Your task to perform on an android device: turn pop-ups off in chrome Image 0: 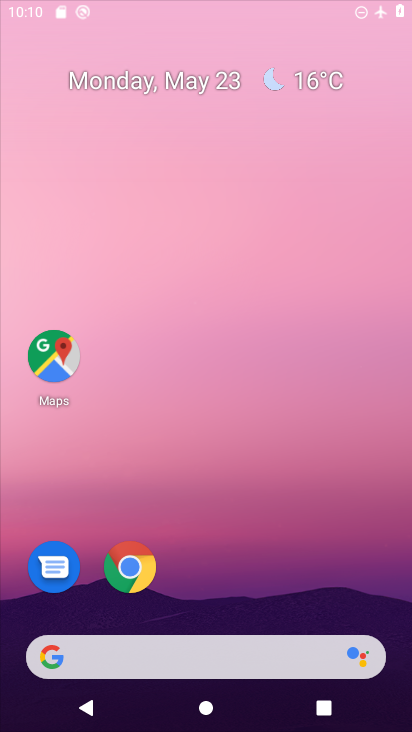
Step 0: click (236, 175)
Your task to perform on an android device: turn pop-ups off in chrome Image 1: 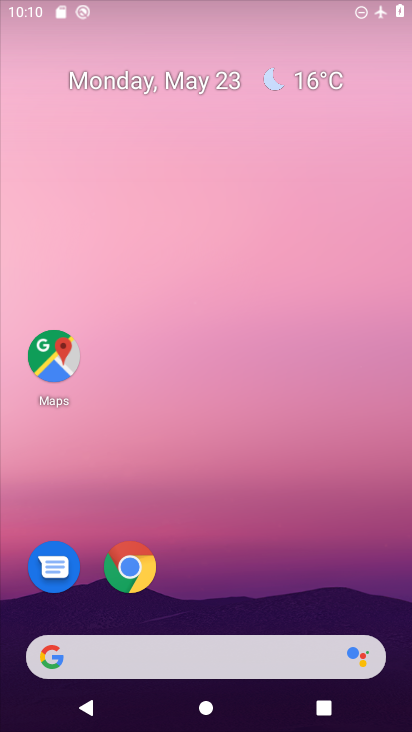
Step 1: drag from (178, 611) to (265, 153)
Your task to perform on an android device: turn pop-ups off in chrome Image 2: 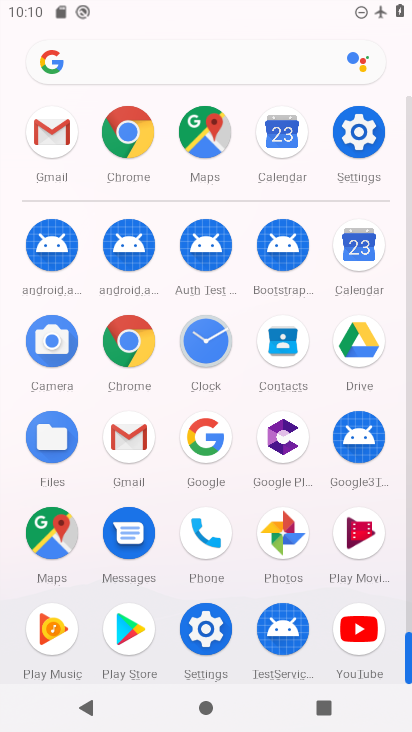
Step 2: click (124, 334)
Your task to perform on an android device: turn pop-ups off in chrome Image 3: 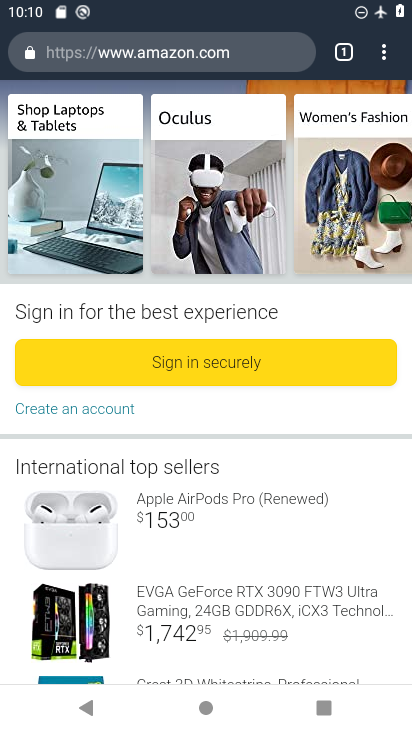
Step 3: click (389, 51)
Your task to perform on an android device: turn pop-ups off in chrome Image 4: 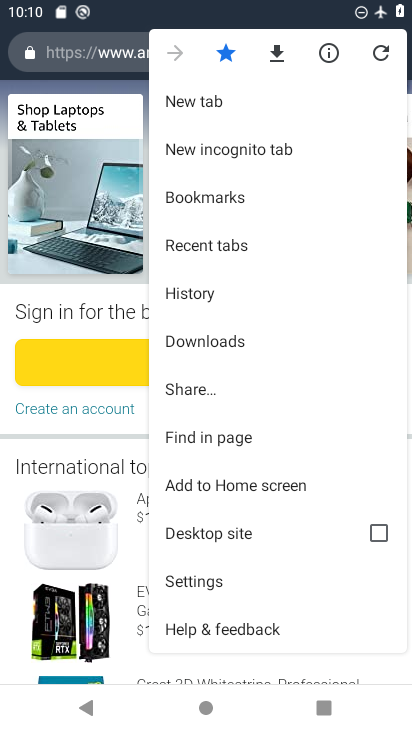
Step 4: drag from (228, 617) to (291, 258)
Your task to perform on an android device: turn pop-ups off in chrome Image 5: 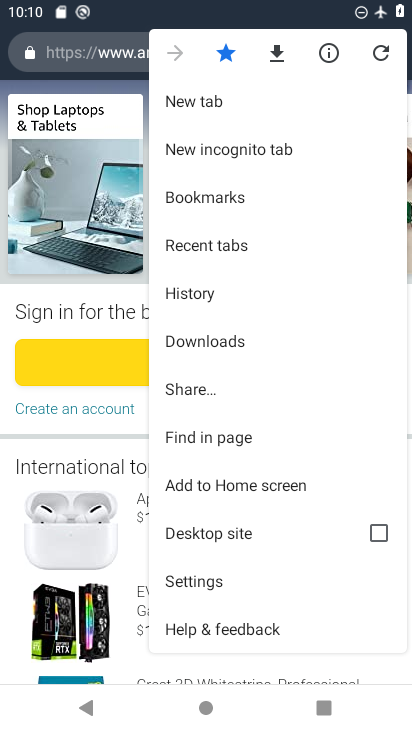
Step 5: click (206, 572)
Your task to perform on an android device: turn pop-ups off in chrome Image 6: 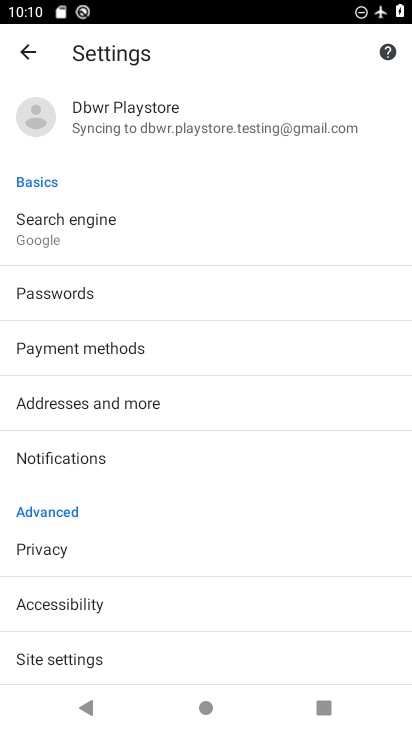
Step 6: drag from (157, 555) to (270, 97)
Your task to perform on an android device: turn pop-ups off in chrome Image 7: 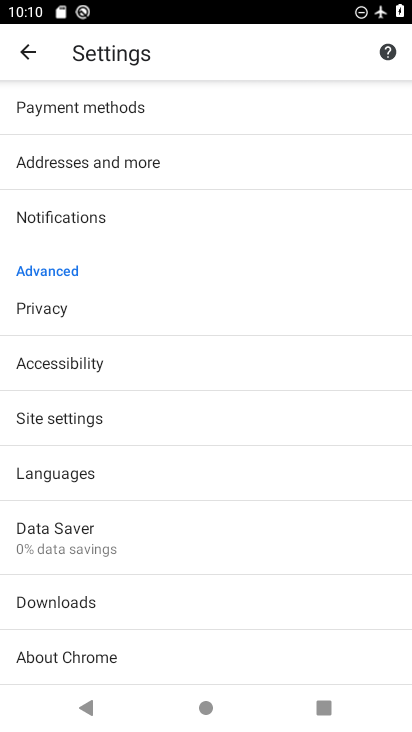
Step 7: click (116, 419)
Your task to perform on an android device: turn pop-ups off in chrome Image 8: 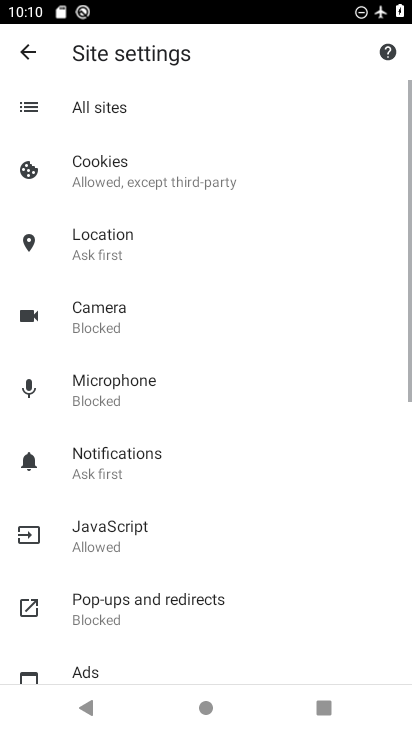
Step 8: drag from (216, 506) to (271, 196)
Your task to perform on an android device: turn pop-ups off in chrome Image 9: 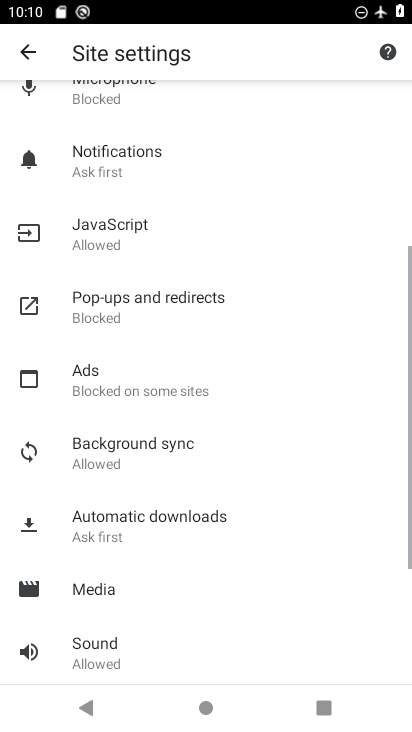
Step 9: click (143, 313)
Your task to perform on an android device: turn pop-ups off in chrome Image 10: 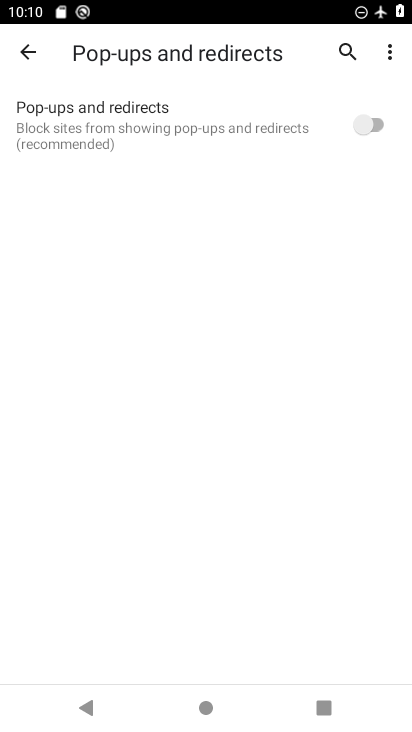
Step 10: task complete